Your task to perform on an android device: see tabs open on other devices in the chrome app Image 0: 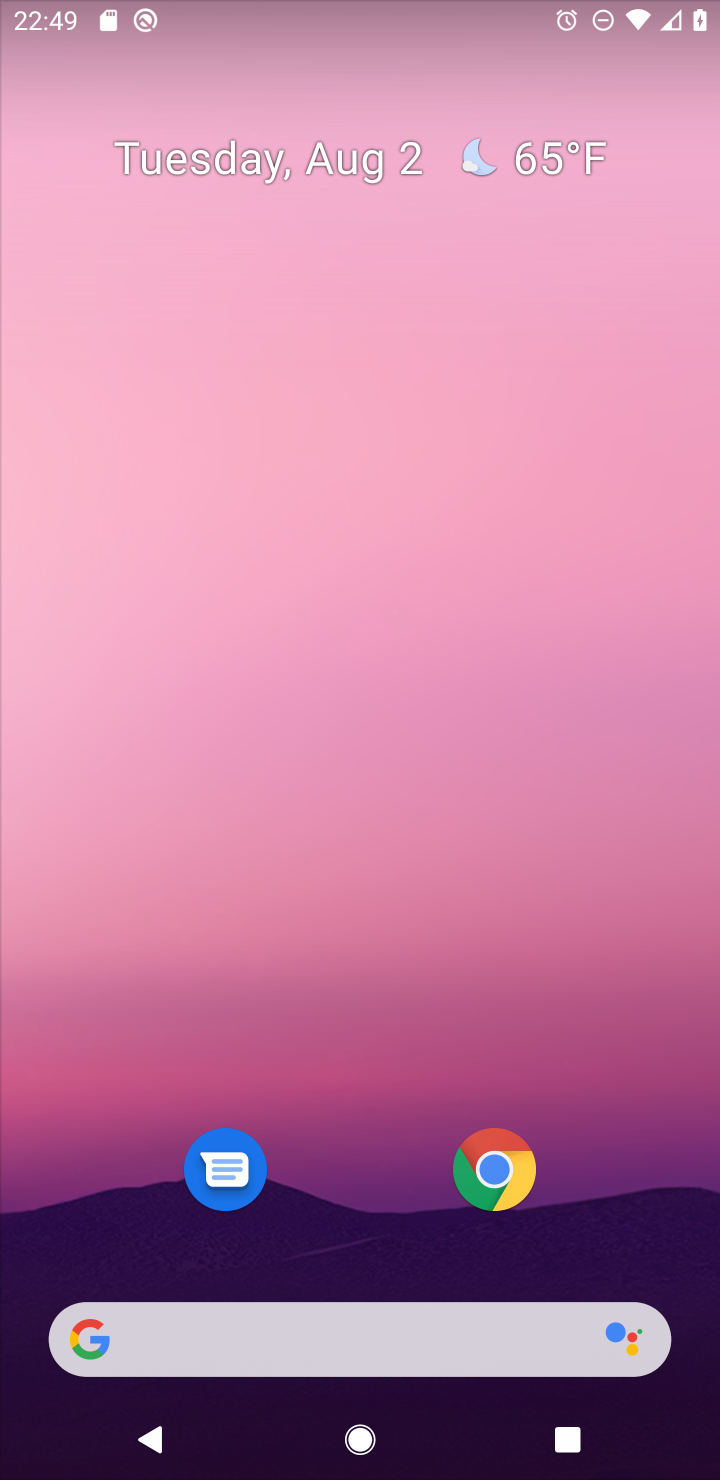
Step 0: click (506, 1171)
Your task to perform on an android device: see tabs open on other devices in the chrome app Image 1: 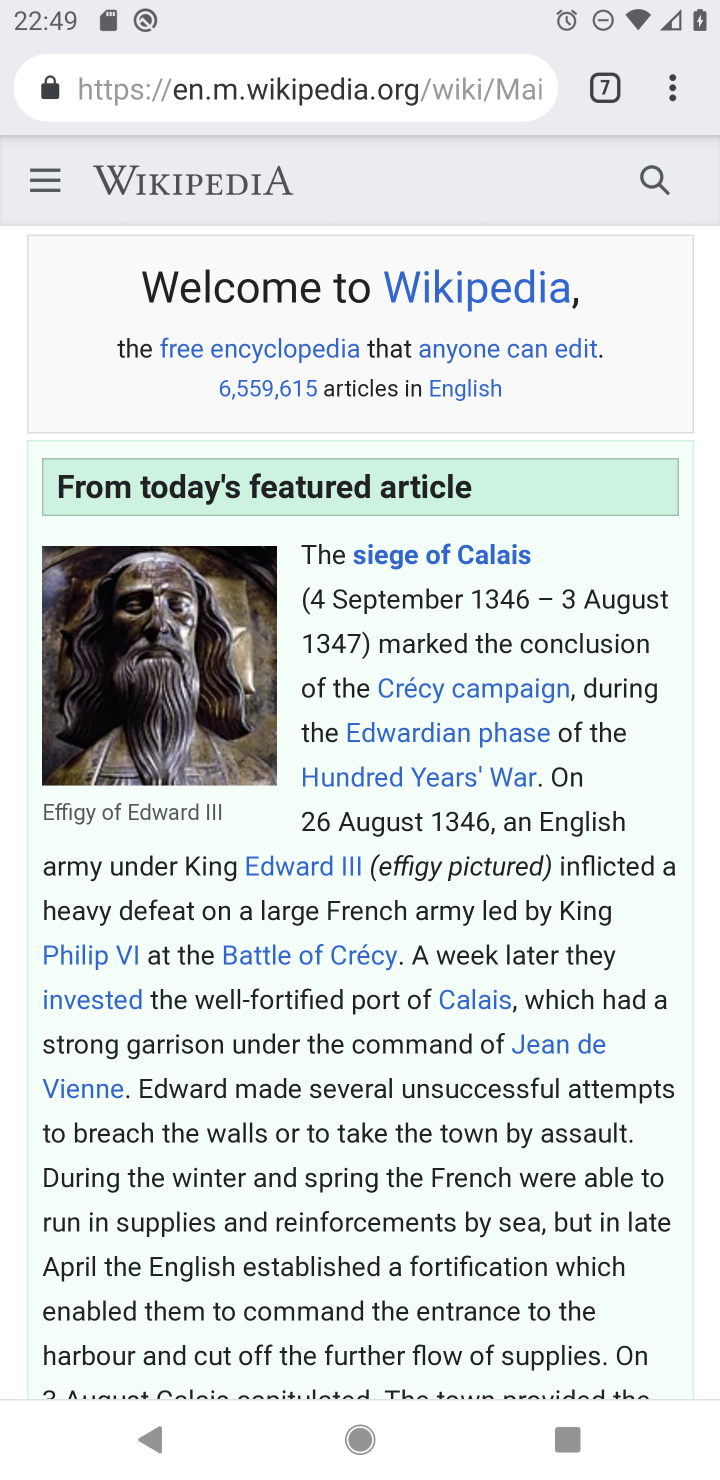
Step 1: click (672, 95)
Your task to perform on an android device: see tabs open on other devices in the chrome app Image 2: 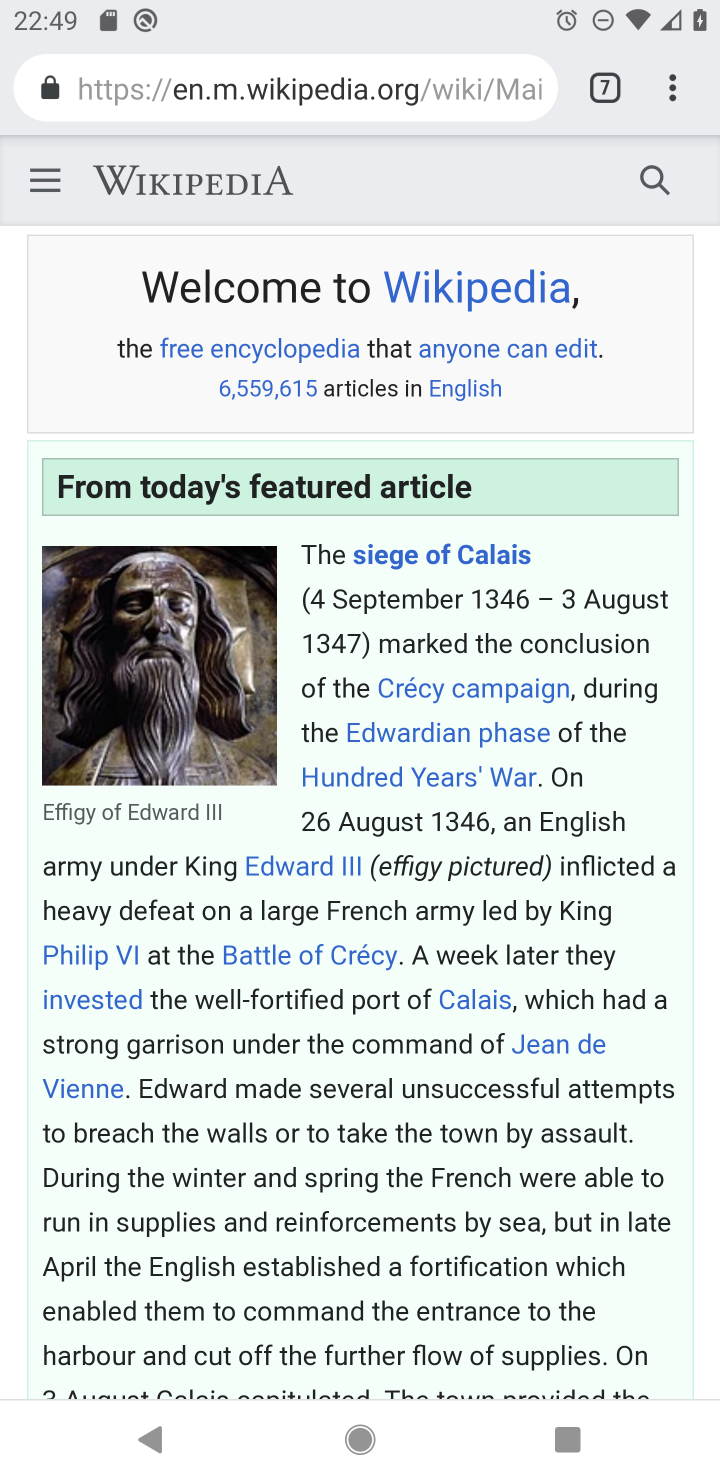
Step 2: click (672, 98)
Your task to perform on an android device: see tabs open on other devices in the chrome app Image 3: 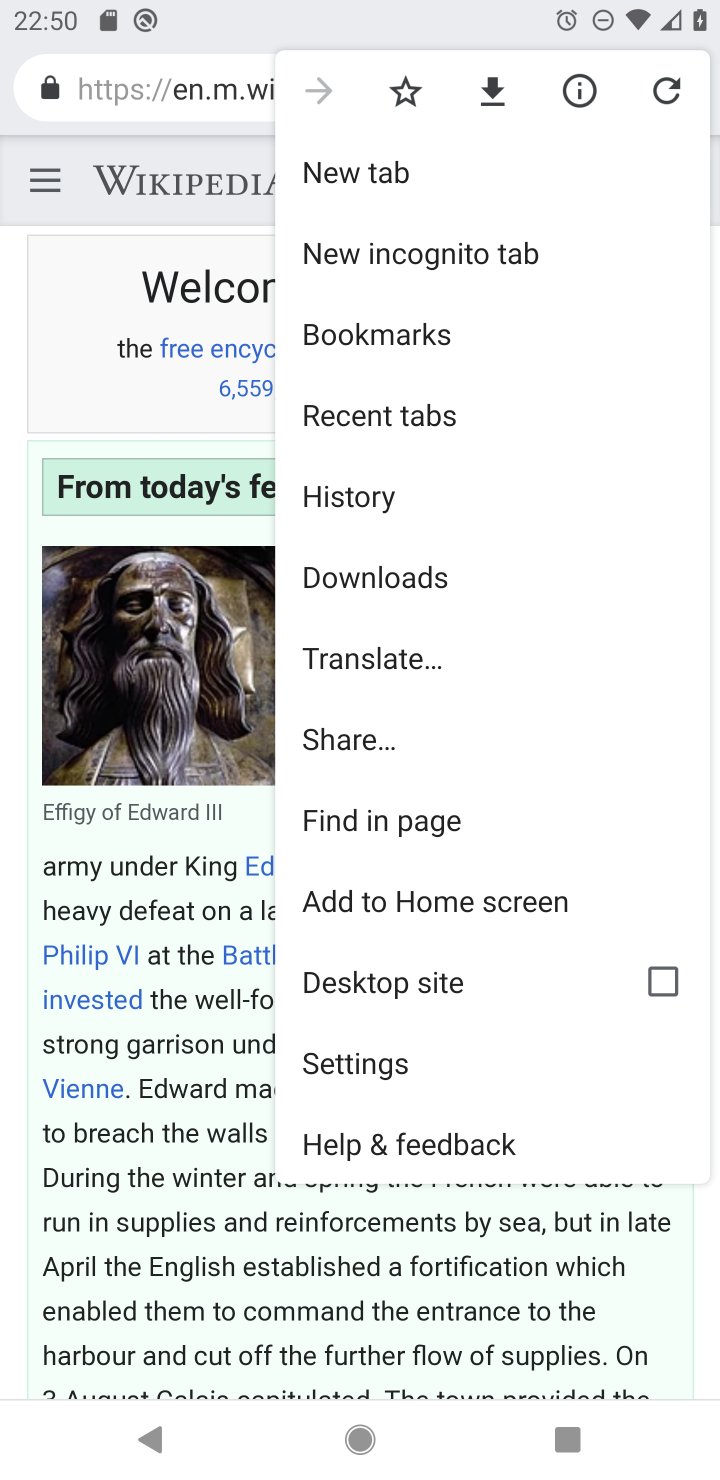
Step 3: click (402, 413)
Your task to perform on an android device: see tabs open on other devices in the chrome app Image 4: 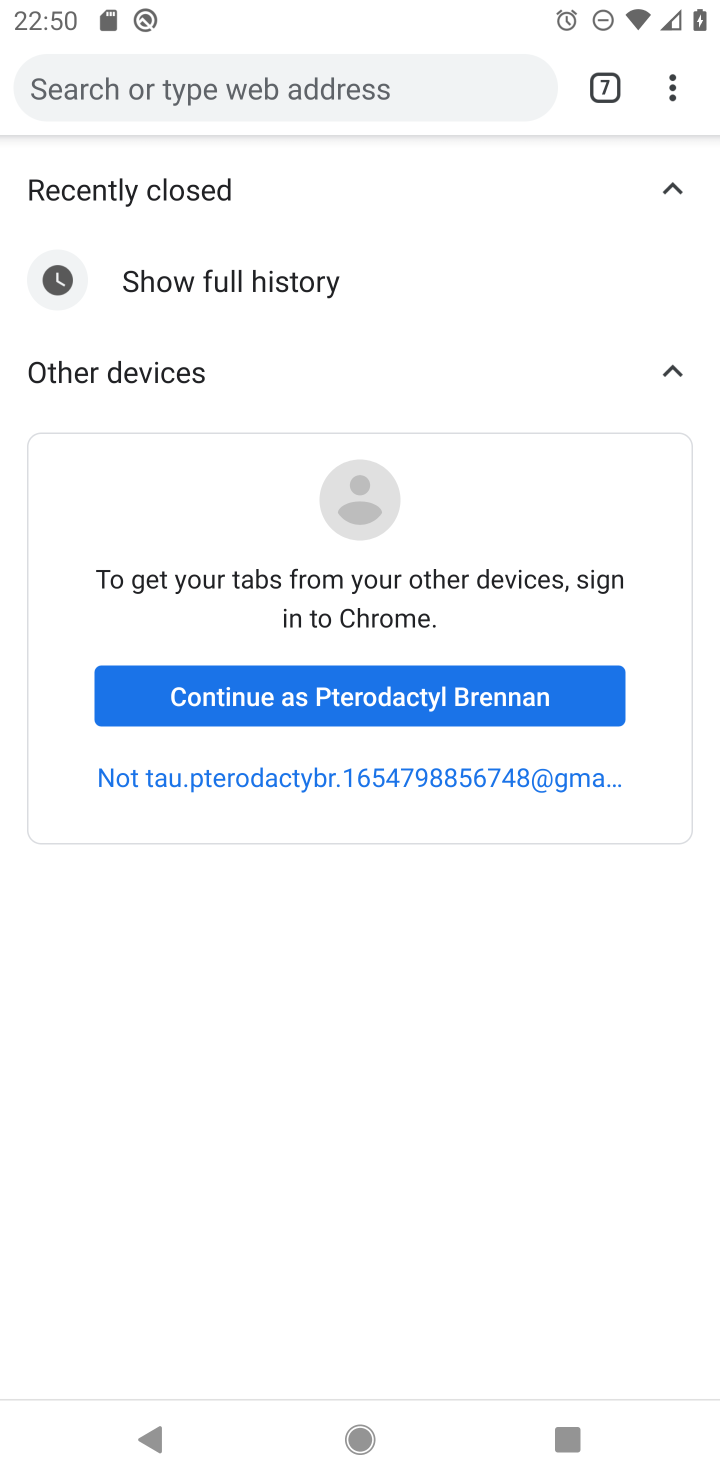
Step 4: task complete